Your task to perform on an android device: Open eBay Image 0: 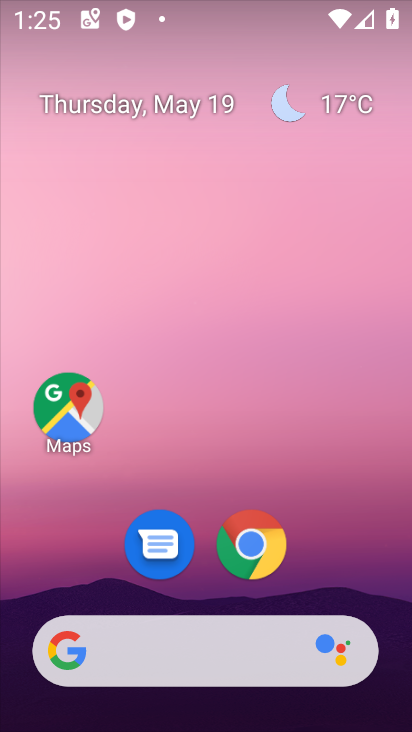
Step 0: click (255, 544)
Your task to perform on an android device: Open eBay Image 1: 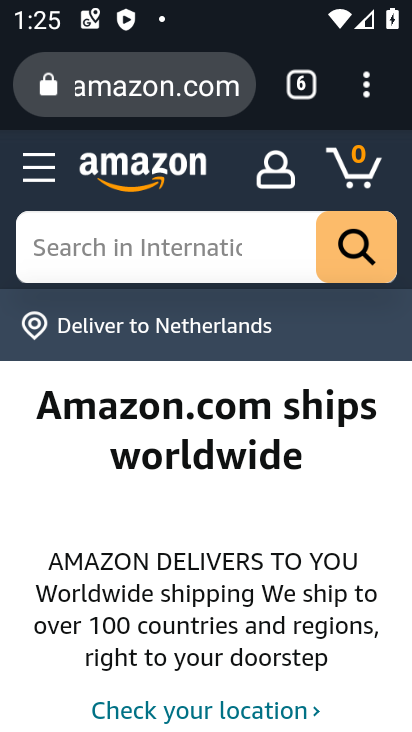
Step 1: click (365, 96)
Your task to perform on an android device: Open eBay Image 2: 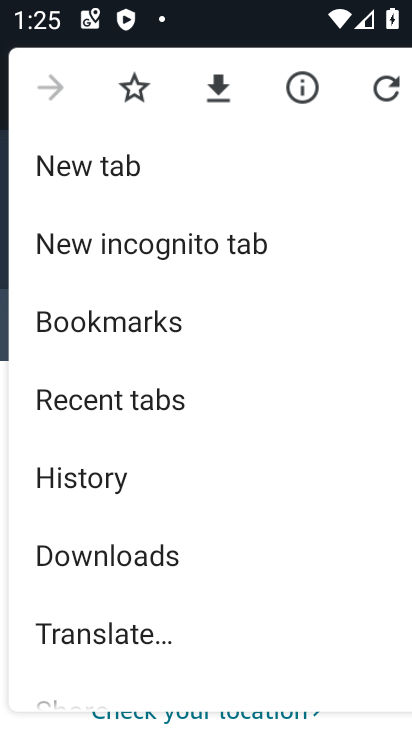
Step 2: click (62, 165)
Your task to perform on an android device: Open eBay Image 3: 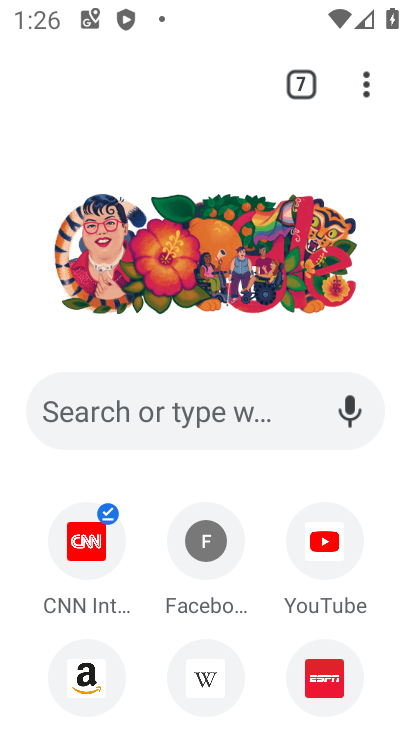
Step 3: click (161, 405)
Your task to perform on an android device: Open eBay Image 4: 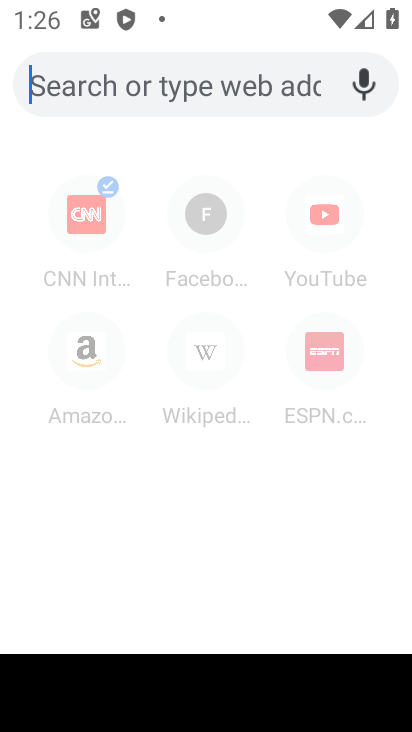
Step 4: type "eBay"
Your task to perform on an android device: Open eBay Image 5: 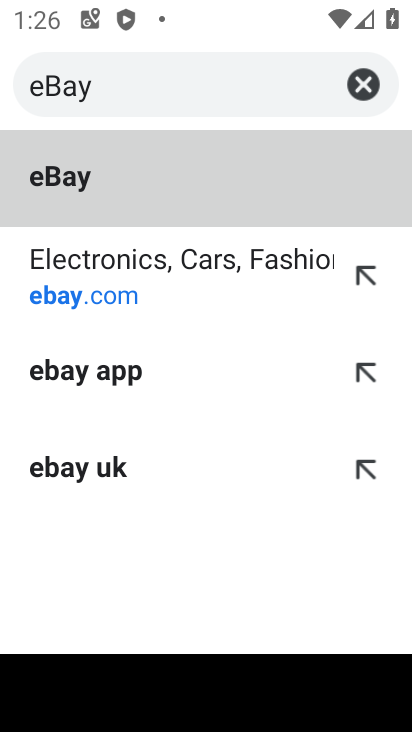
Step 5: click (115, 185)
Your task to perform on an android device: Open eBay Image 6: 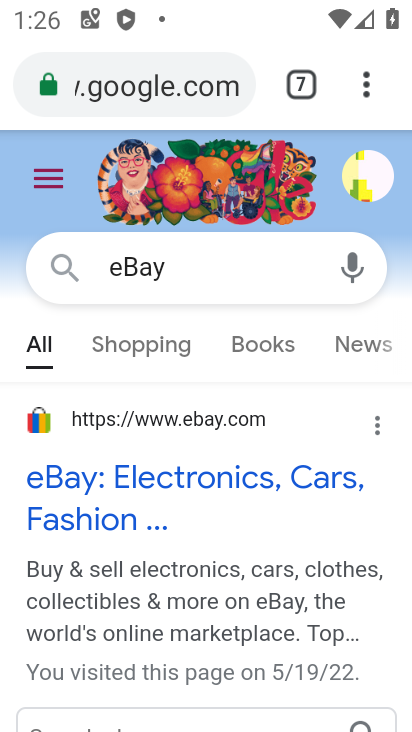
Step 6: click (109, 478)
Your task to perform on an android device: Open eBay Image 7: 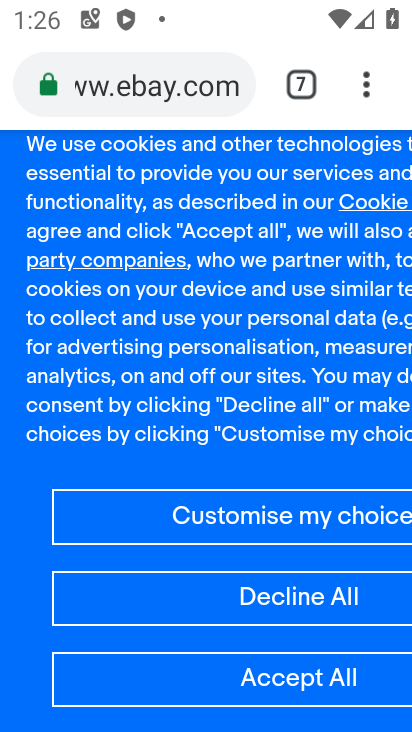
Step 7: task complete